Your task to perform on an android device: Empty the shopping cart on bestbuy. Search for razer blade on bestbuy, select the first entry, and add it to the cart. Image 0: 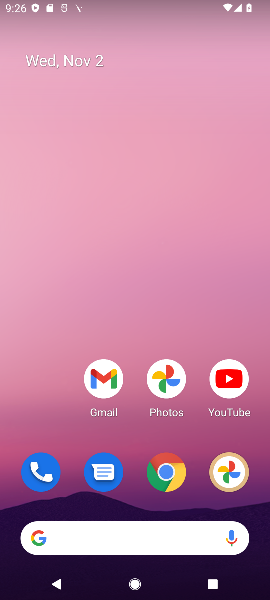
Step 0: task complete